Your task to perform on an android device: What's on my calendar tomorrow? Image 0: 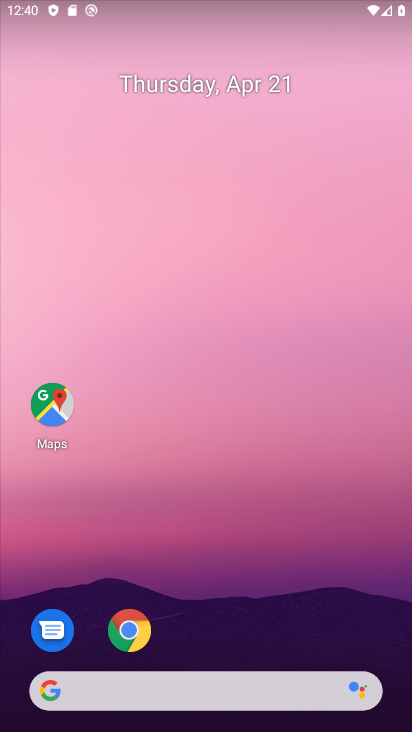
Step 0: drag from (197, 476) to (187, 137)
Your task to perform on an android device: What's on my calendar tomorrow? Image 1: 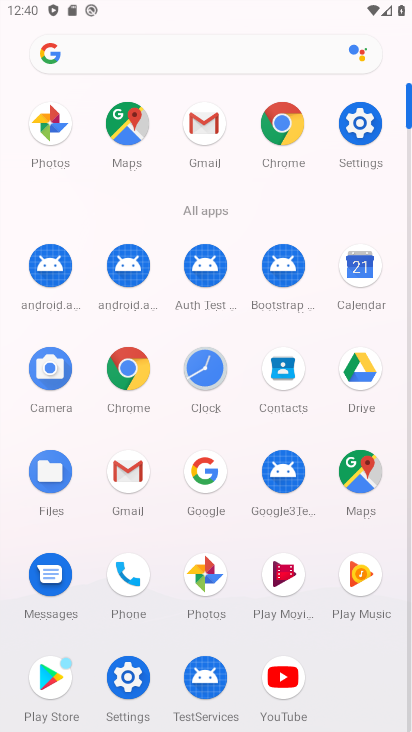
Step 1: click (358, 266)
Your task to perform on an android device: What's on my calendar tomorrow? Image 2: 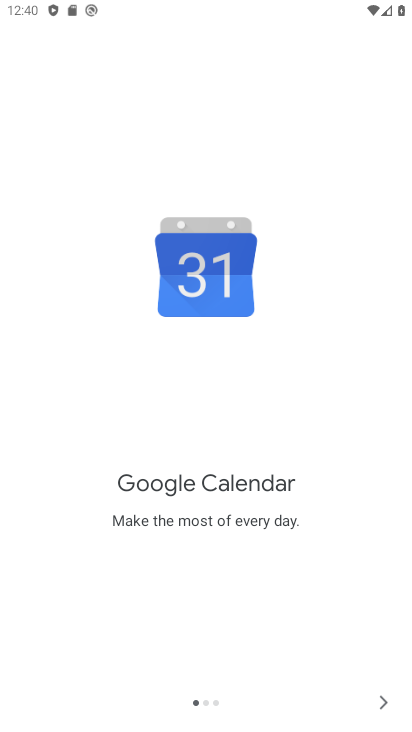
Step 2: click (373, 710)
Your task to perform on an android device: What's on my calendar tomorrow? Image 3: 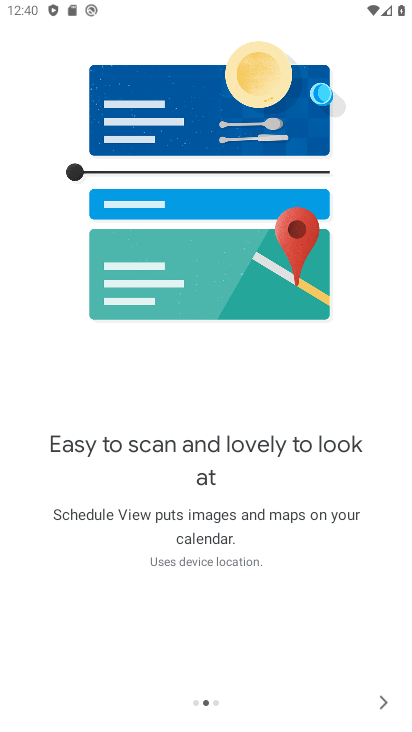
Step 3: click (373, 710)
Your task to perform on an android device: What's on my calendar tomorrow? Image 4: 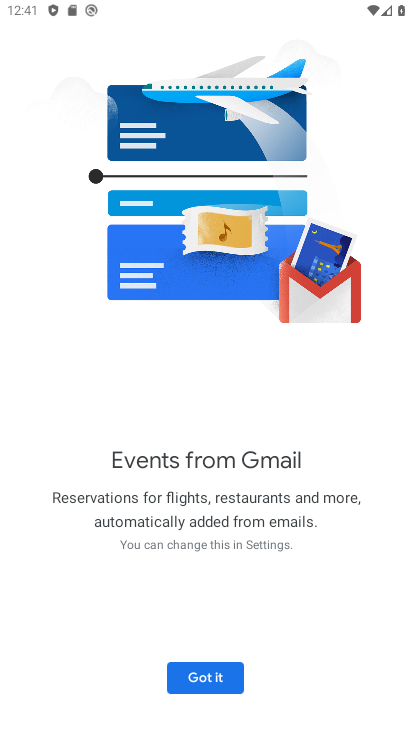
Step 4: click (190, 673)
Your task to perform on an android device: What's on my calendar tomorrow? Image 5: 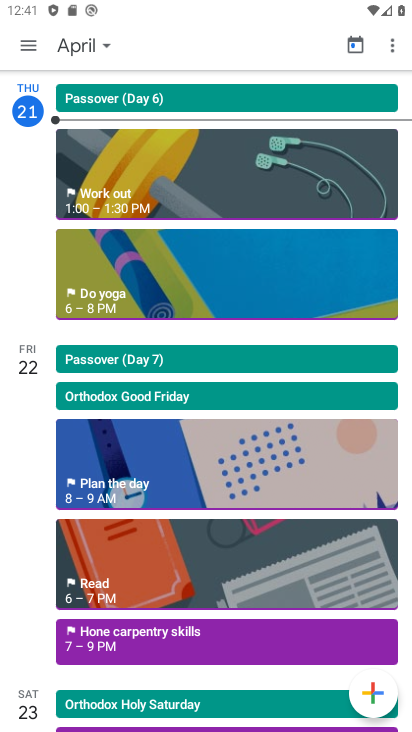
Step 5: task complete